Your task to perform on an android device: Open Yahoo.com Image 0: 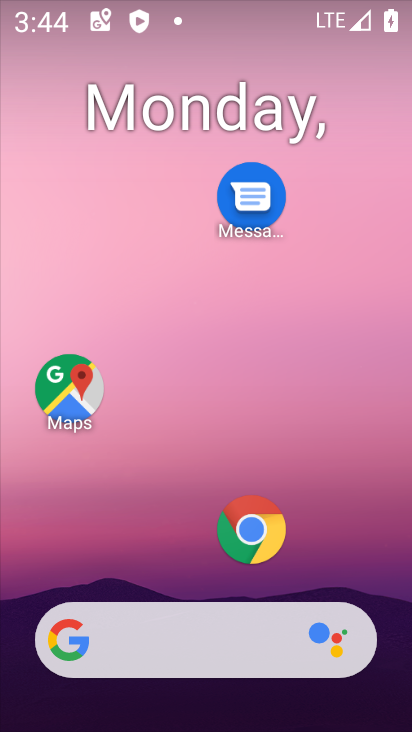
Step 0: click (250, 544)
Your task to perform on an android device: Open Yahoo.com Image 1: 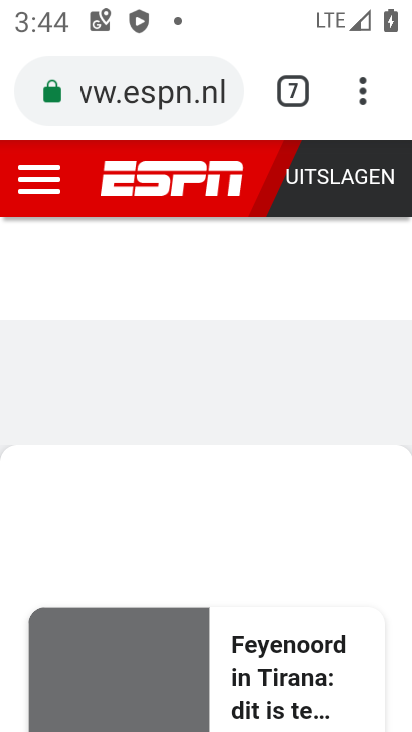
Step 1: click (284, 91)
Your task to perform on an android device: Open Yahoo.com Image 2: 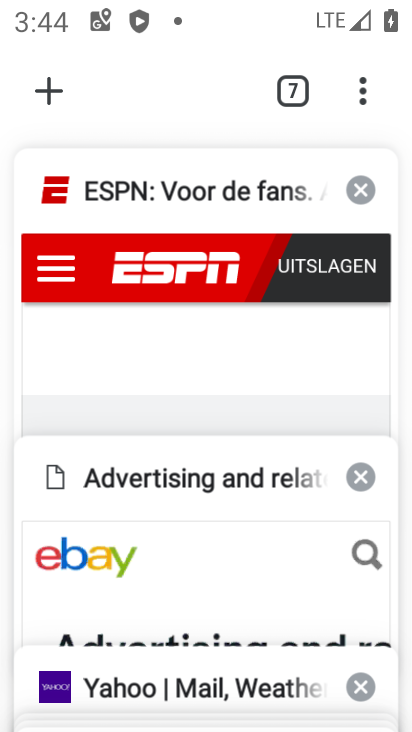
Step 2: drag from (192, 569) to (218, 135)
Your task to perform on an android device: Open Yahoo.com Image 3: 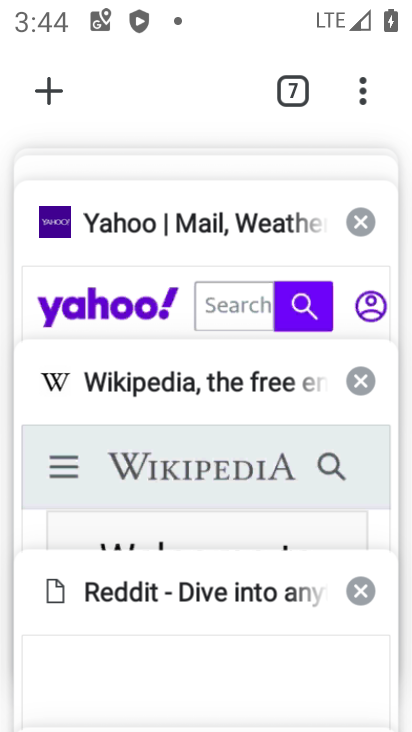
Step 3: click (200, 241)
Your task to perform on an android device: Open Yahoo.com Image 4: 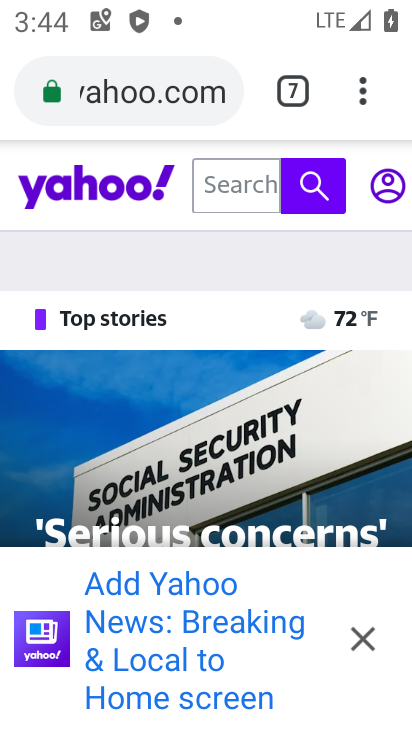
Step 4: task complete